Your task to perform on an android device: When is my next meeting? Image 0: 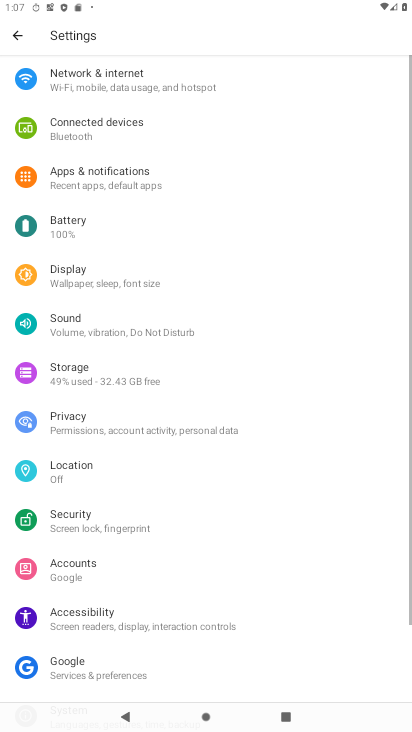
Step 0: press home button
Your task to perform on an android device: When is my next meeting? Image 1: 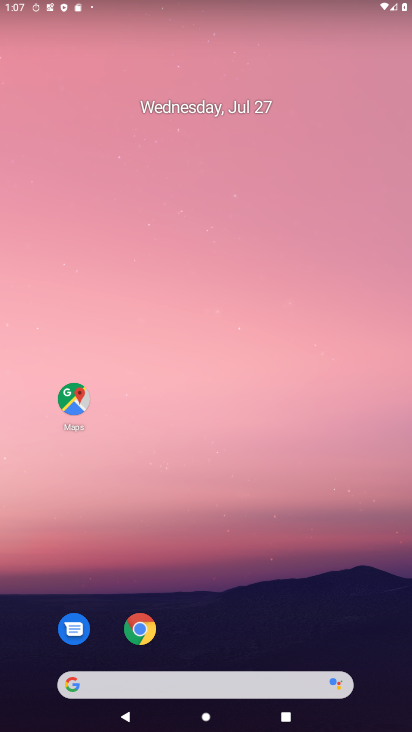
Step 1: drag from (376, 611) to (105, 73)
Your task to perform on an android device: When is my next meeting? Image 2: 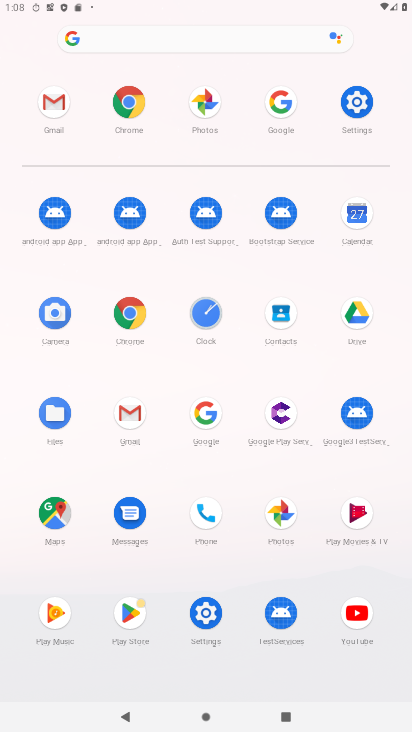
Step 2: click (364, 208)
Your task to perform on an android device: When is my next meeting? Image 3: 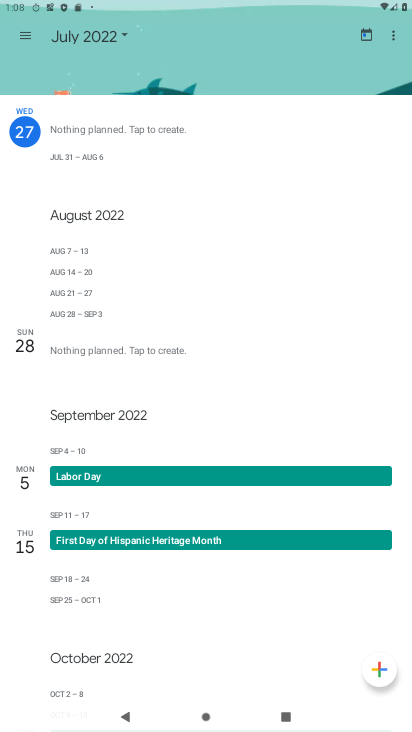
Step 3: task complete